Your task to perform on an android device: turn off picture-in-picture Image 0: 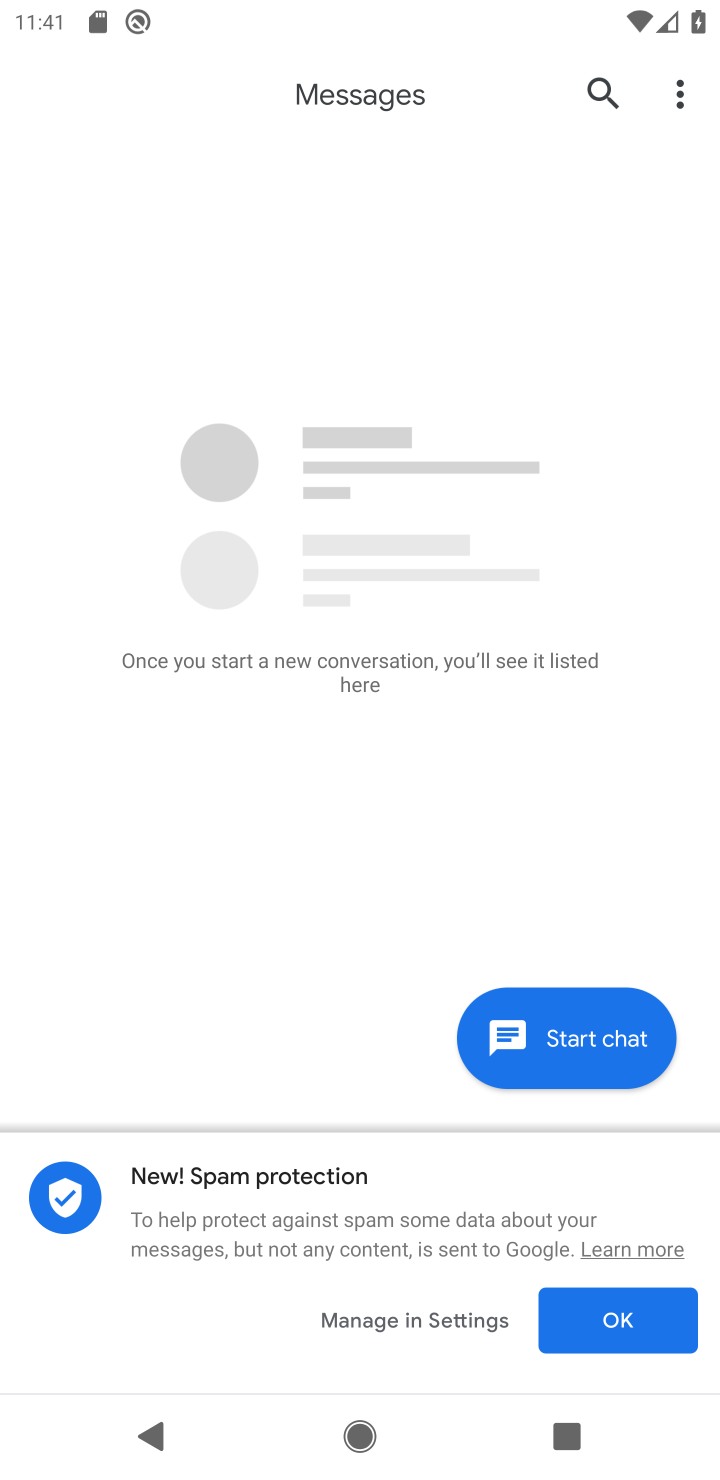
Step 0: press home button
Your task to perform on an android device: turn off picture-in-picture Image 1: 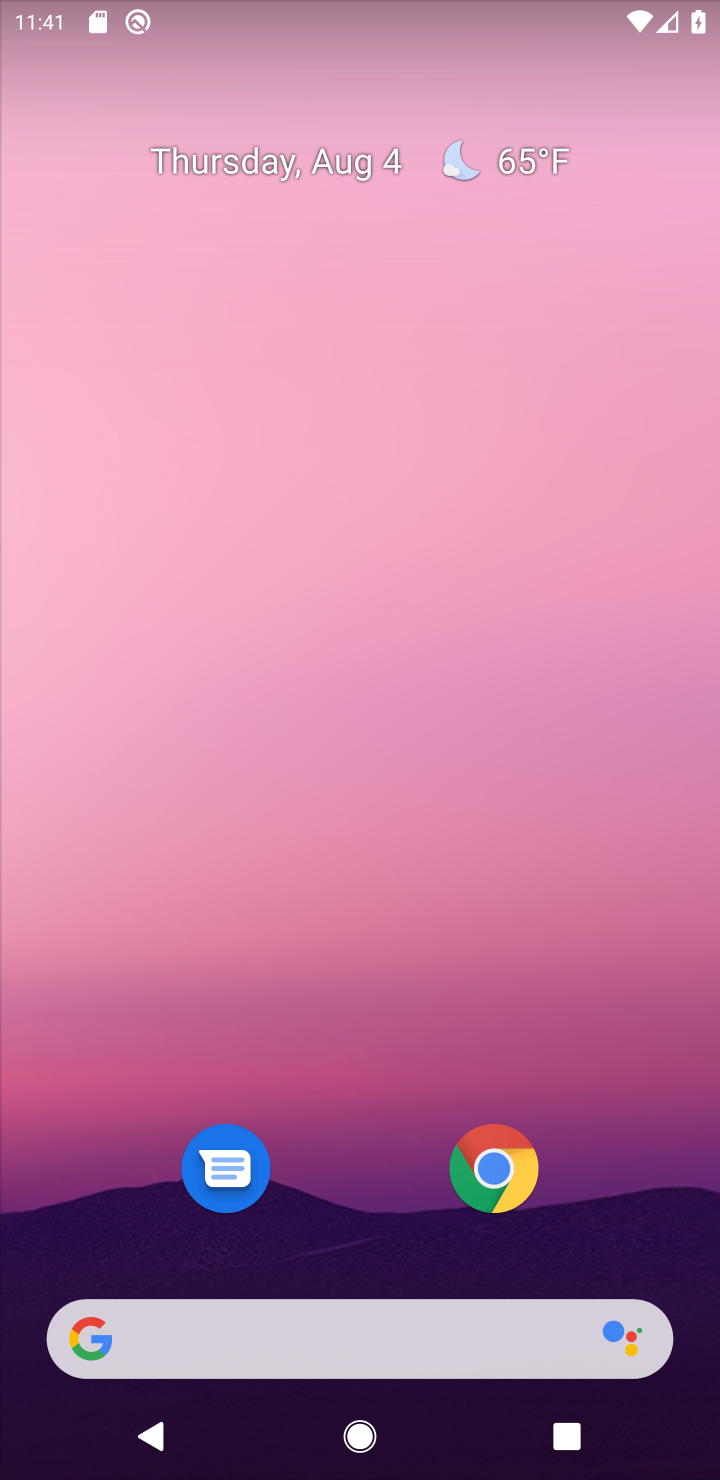
Step 1: click (495, 1139)
Your task to perform on an android device: turn off picture-in-picture Image 2: 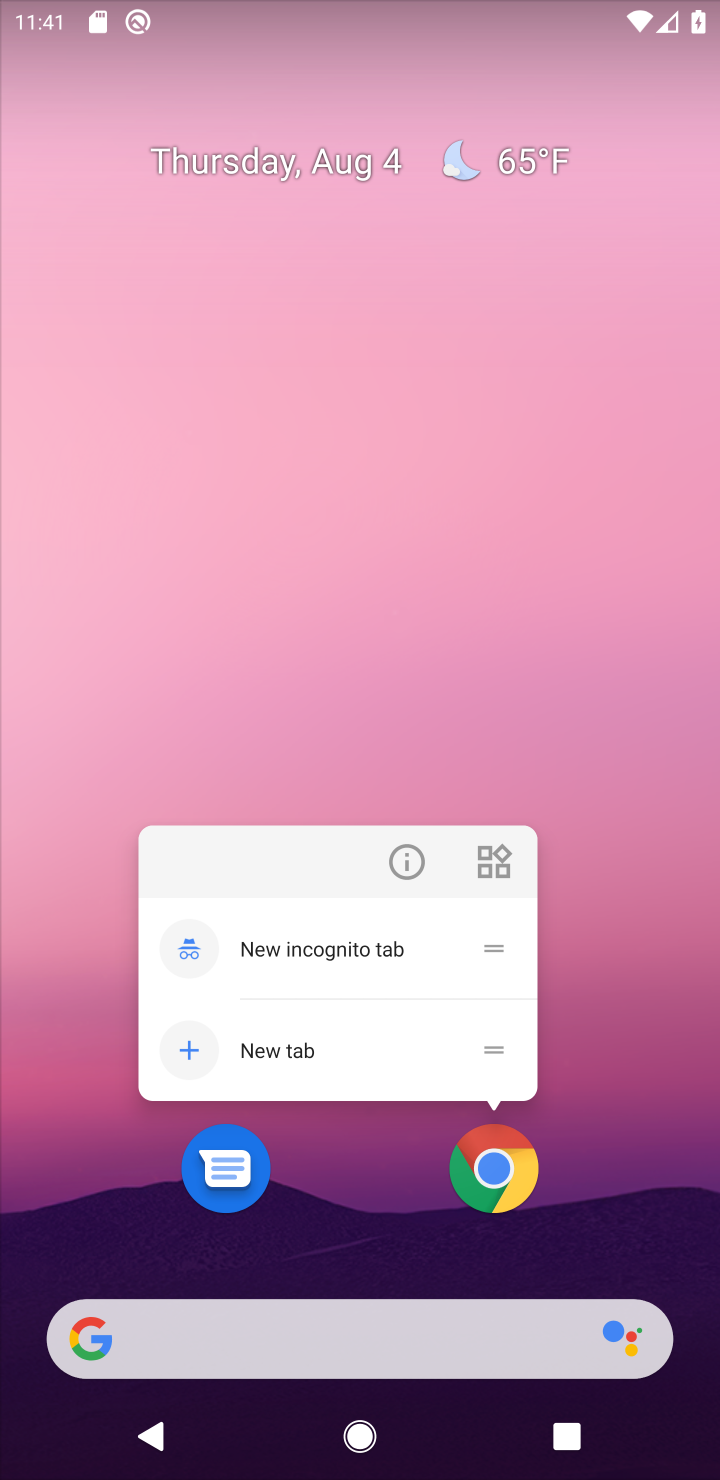
Step 2: click (412, 866)
Your task to perform on an android device: turn off picture-in-picture Image 3: 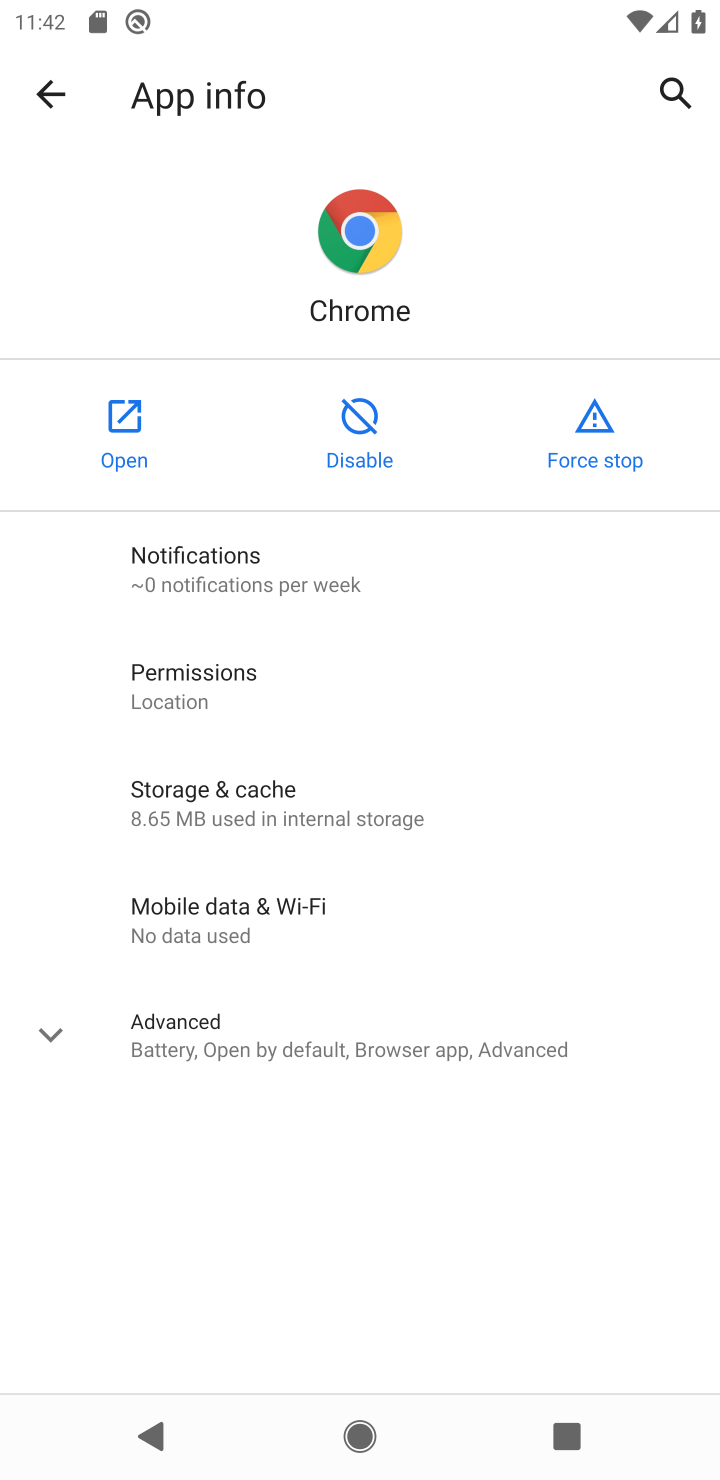
Step 3: click (218, 1053)
Your task to perform on an android device: turn off picture-in-picture Image 4: 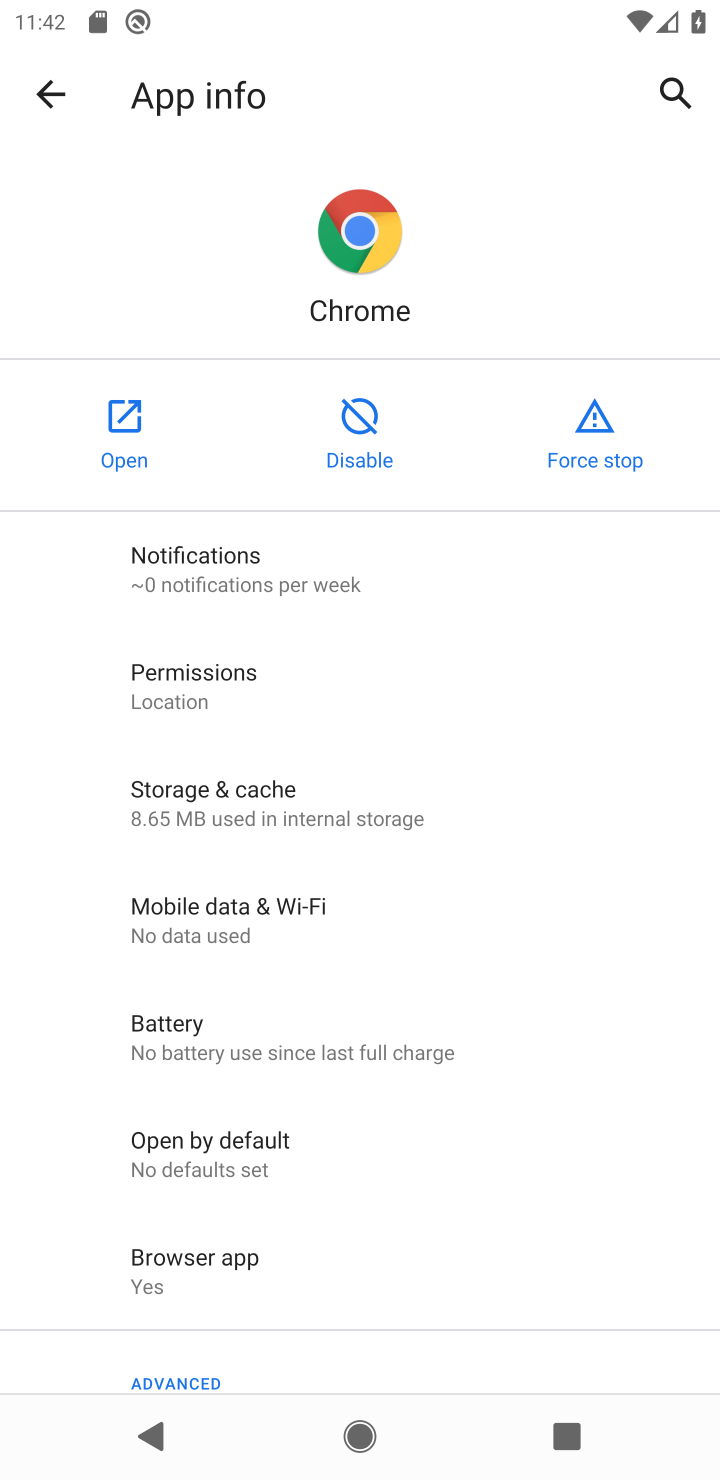
Step 4: drag from (284, 1119) to (349, 471)
Your task to perform on an android device: turn off picture-in-picture Image 5: 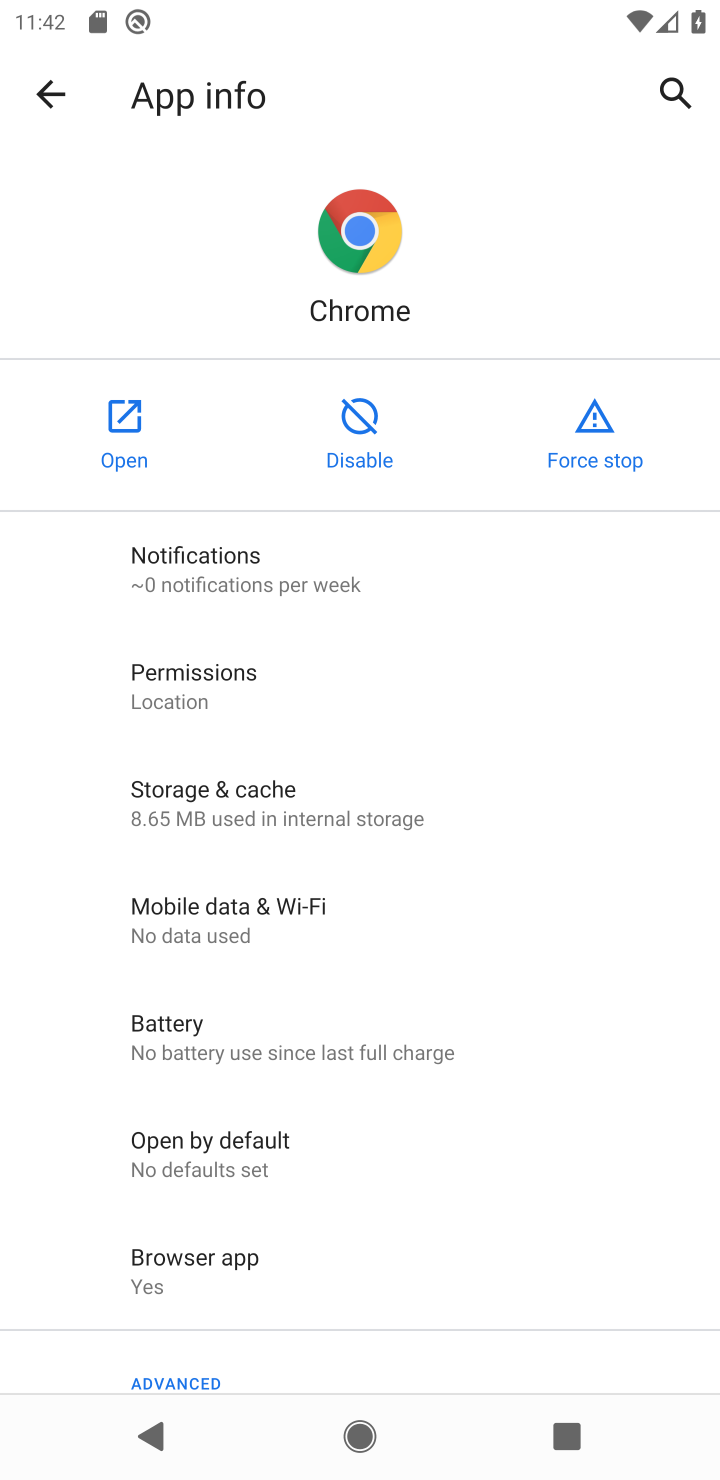
Step 5: drag from (292, 1249) to (408, 500)
Your task to perform on an android device: turn off picture-in-picture Image 6: 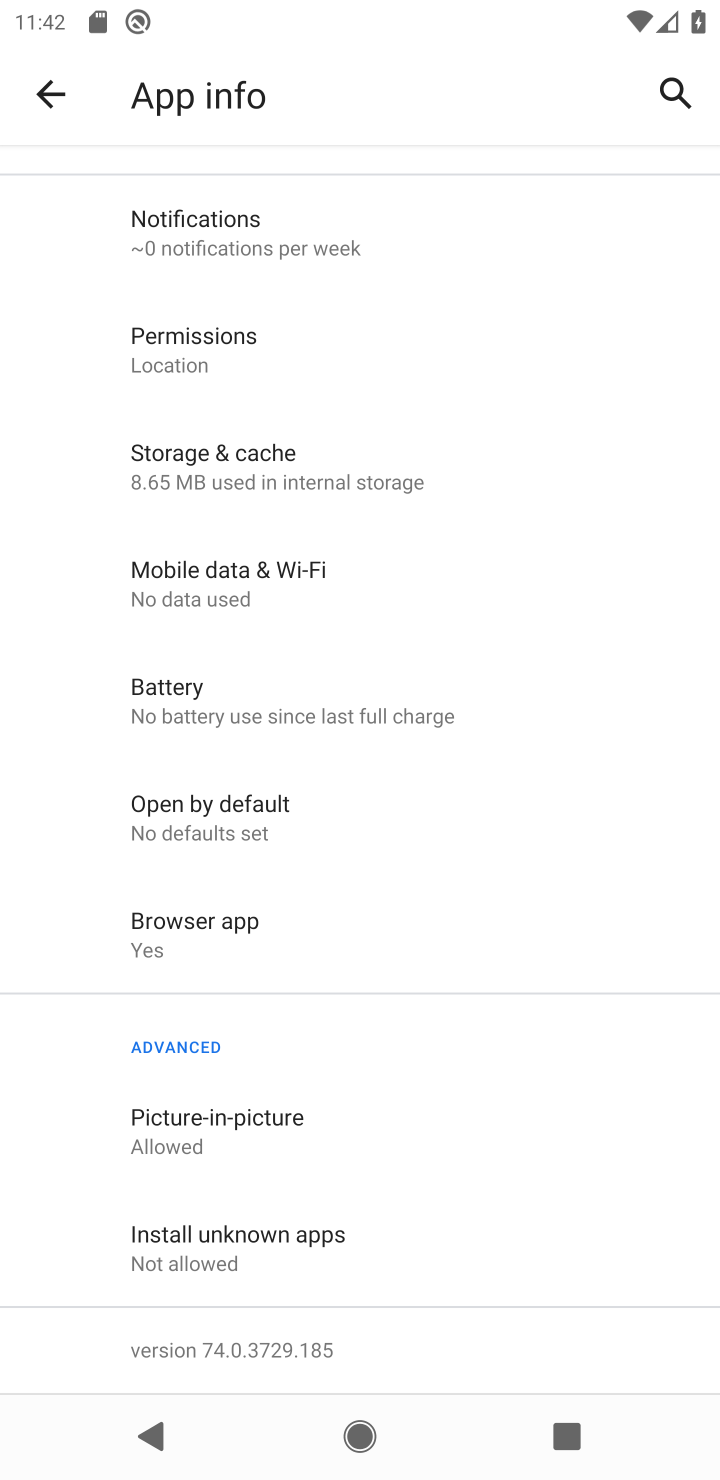
Step 6: click (257, 1121)
Your task to perform on an android device: turn off picture-in-picture Image 7: 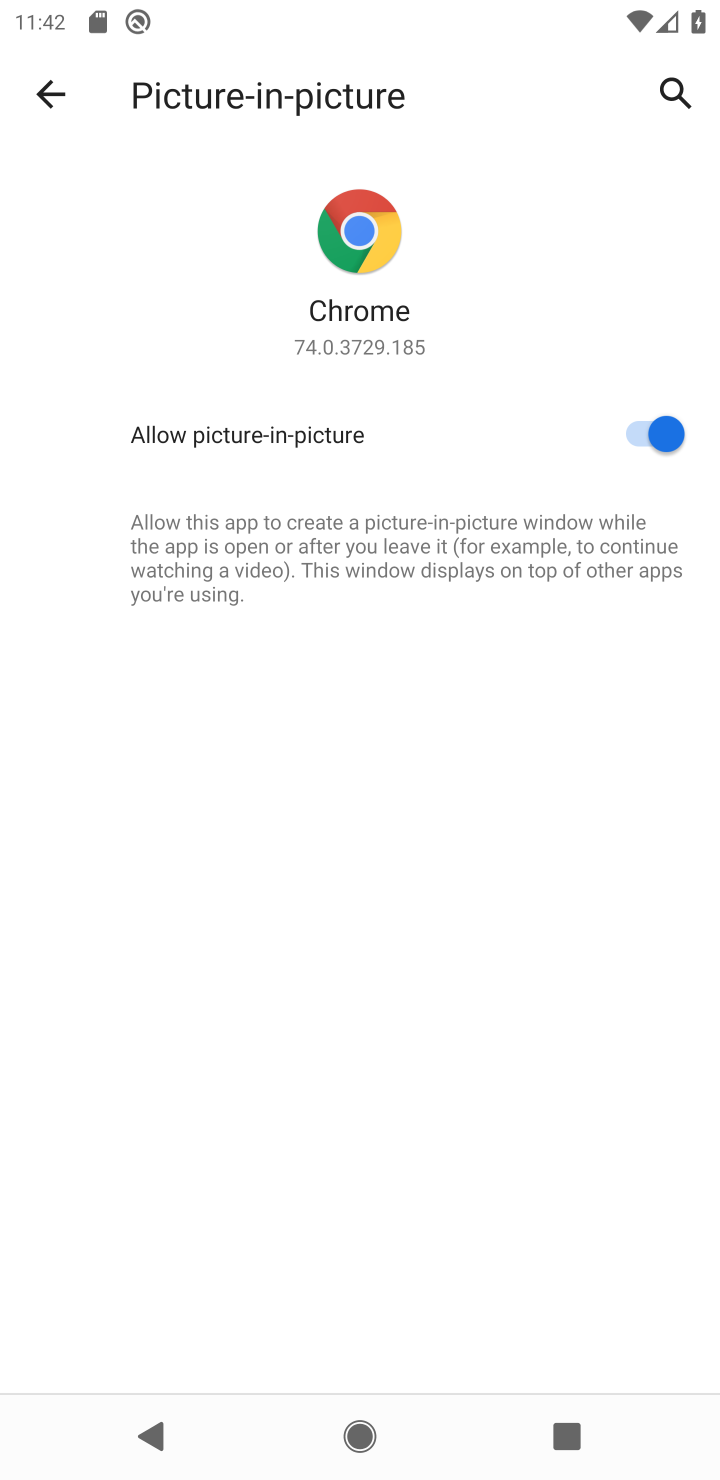
Step 7: click (580, 432)
Your task to perform on an android device: turn off picture-in-picture Image 8: 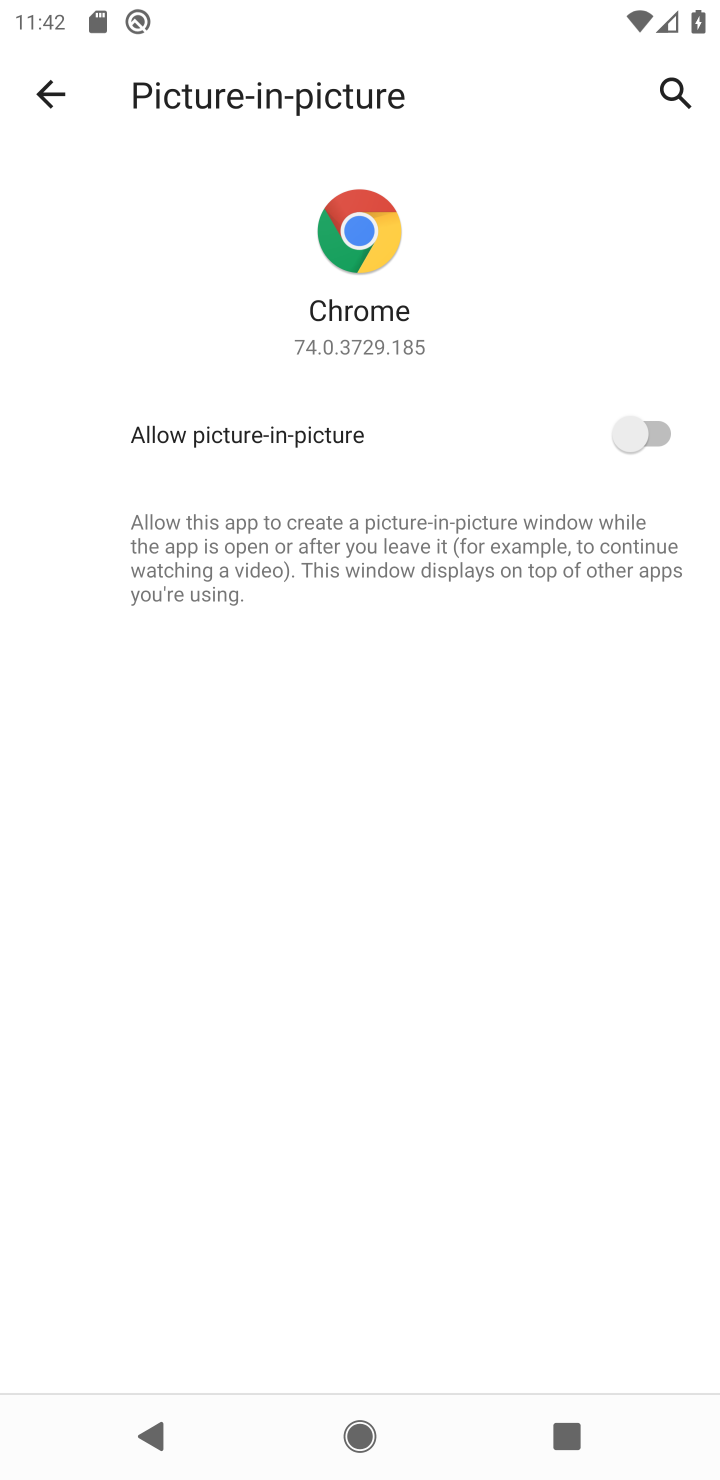
Step 8: task complete